Your task to perform on an android device: Go to privacy settings Image 0: 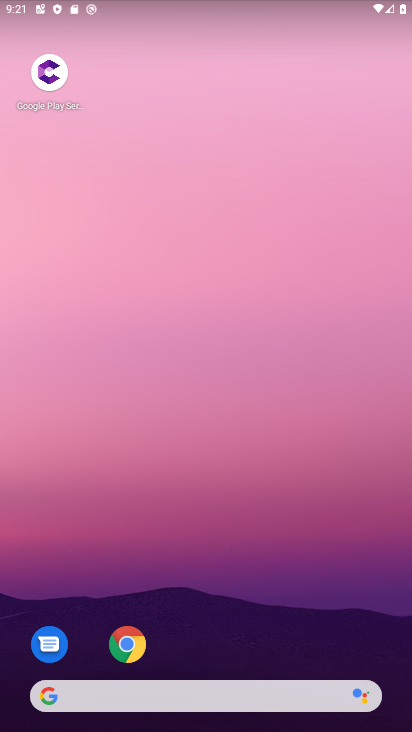
Step 0: drag from (301, 619) to (353, 215)
Your task to perform on an android device: Go to privacy settings Image 1: 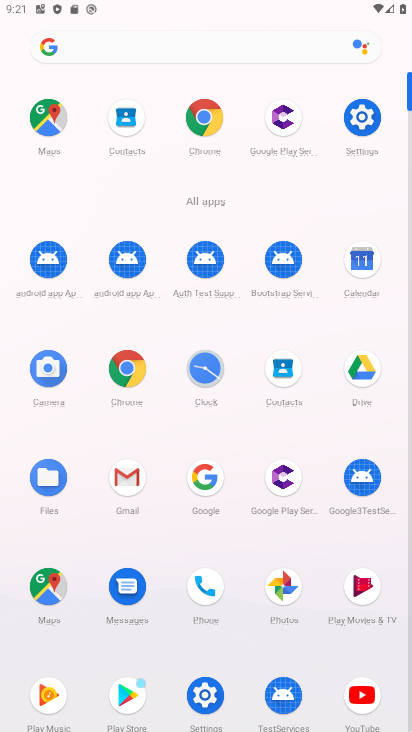
Step 1: click (376, 149)
Your task to perform on an android device: Go to privacy settings Image 2: 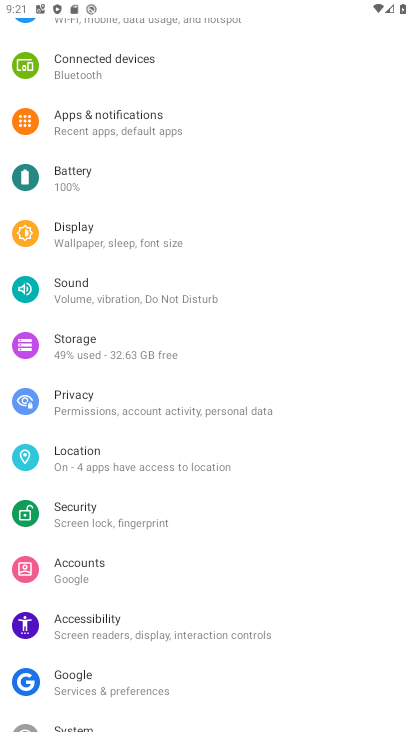
Step 2: click (211, 422)
Your task to perform on an android device: Go to privacy settings Image 3: 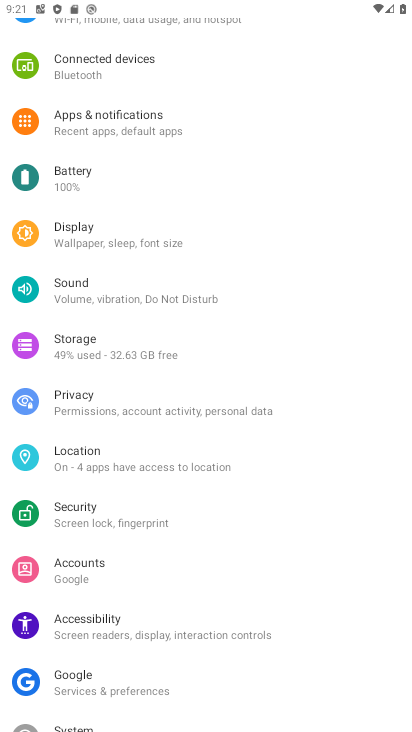
Step 3: task complete